Your task to perform on an android device: Do I have any events this weekend? Image 0: 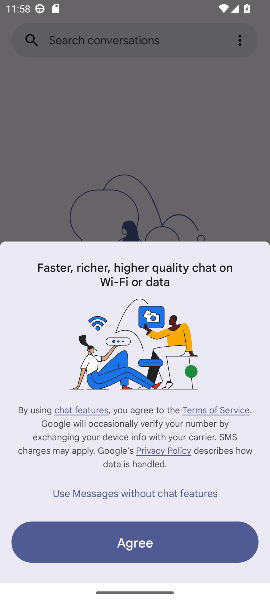
Step 0: press home button
Your task to perform on an android device: Do I have any events this weekend? Image 1: 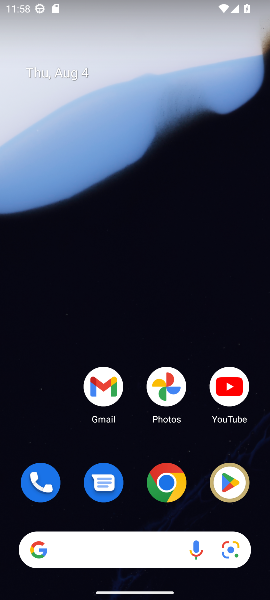
Step 1: drag from (139, 449) to (157, 135)
Your task to perform on an android device: Do I have any events this weekend? Image 2: 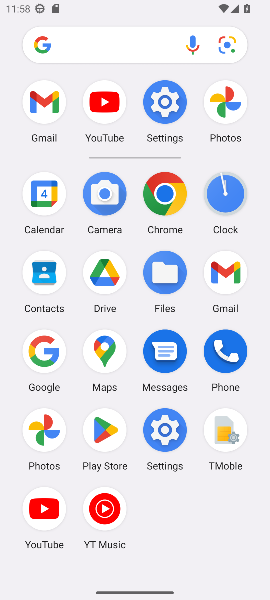
Step 2: click (52, 202)
Your task to perform on an android device: Do I have any events this weekend? Image 3: 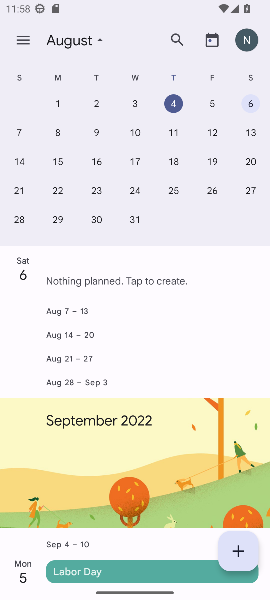
Step 3: click (244, 107)
Your task to perform on an android device: Do I have any events this weekend? Image 4: 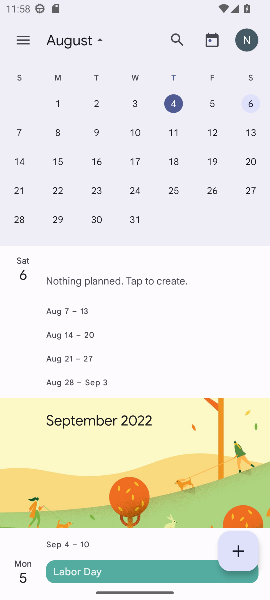
Step 4: task complete